Your task to perform on an android device: turn off picture-in-picture Image 0: 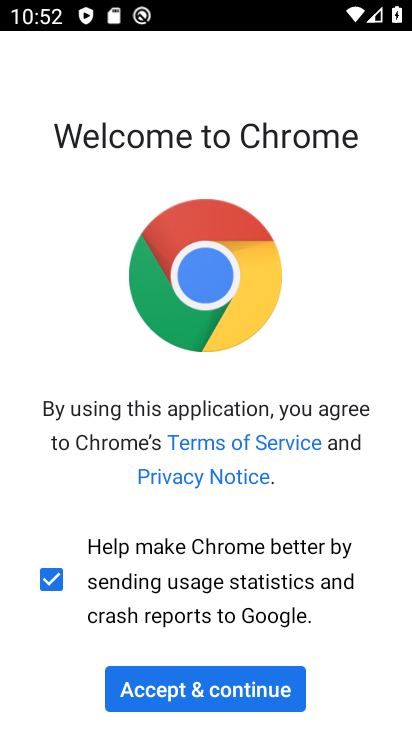
Step 0: press home button
Your task to perform on an android device: turn off picture-in-picture Image 1: 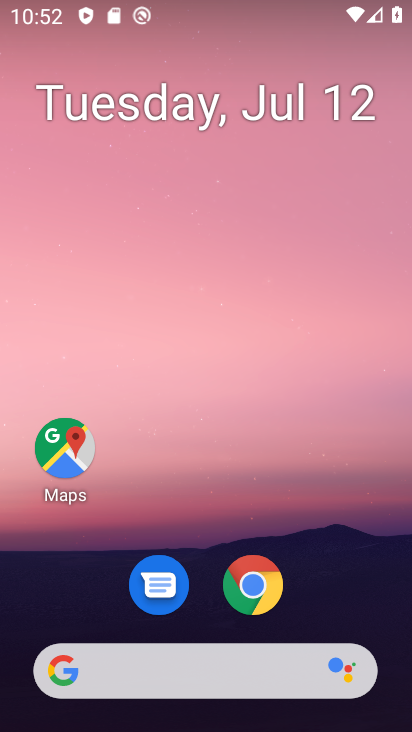
Step 1: click (268, 573)
Your task to perform on an android device: turn off picture-in-picture Image 2: 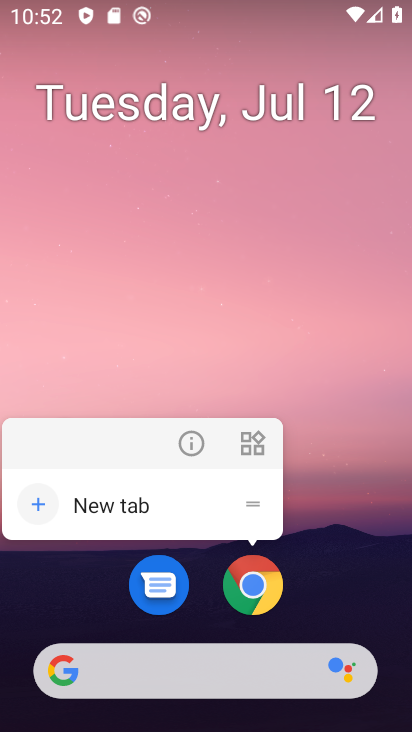
Step 2: click (189, 443)
Your task to perform on an android device: turn off picture-in-picture Image 3: 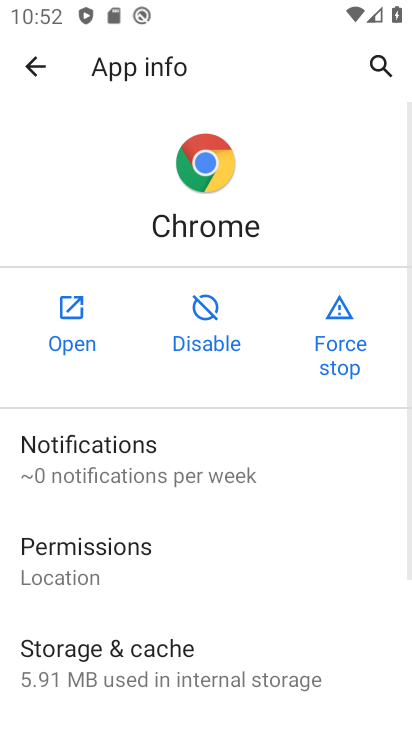
Step 3: drag from (218, 540) to (234, 141)
Your task to perform on an android device: turn off picture-in-picture Image 4: 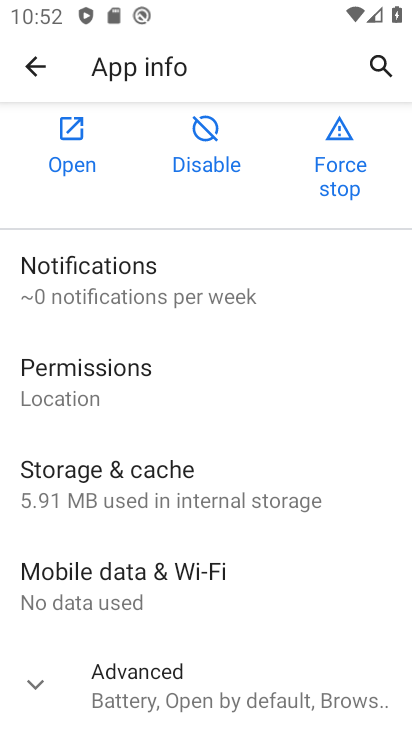
Step 4: click (38, 688)
Your task to perform on an android device: turn off picture-in-picture Image 5: 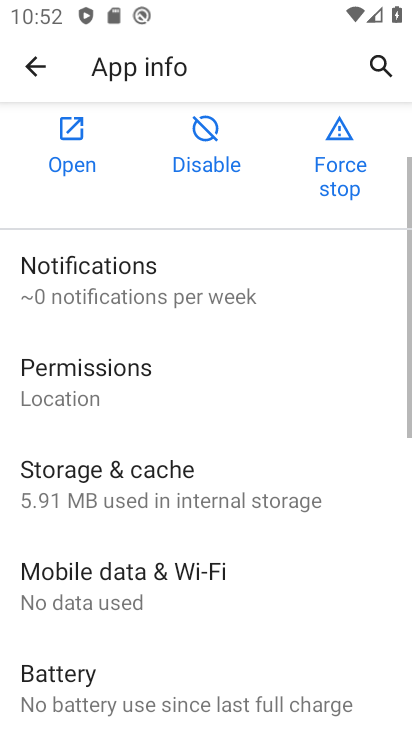
Step 5: drag from (242, 652) to (247, 226)
Your task to perform on an android device: turn off picture-in-picture Image 6: 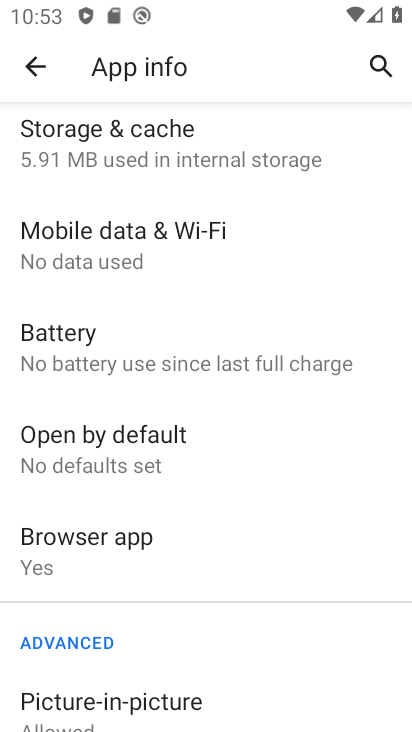
Step 6: drag from (240, 541) to (237, 254)
Your task to perform on an android device: turn off picture-in-picture Image 7: 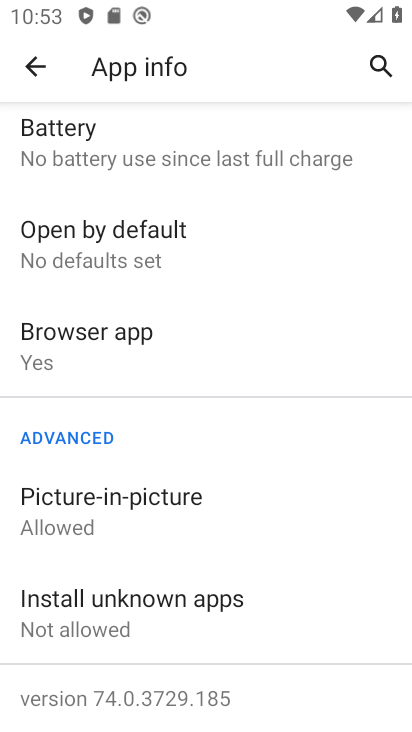
Step 7: click (70, 511)
Your task to perform on an android device: turn off picture-in-picture Image 8: 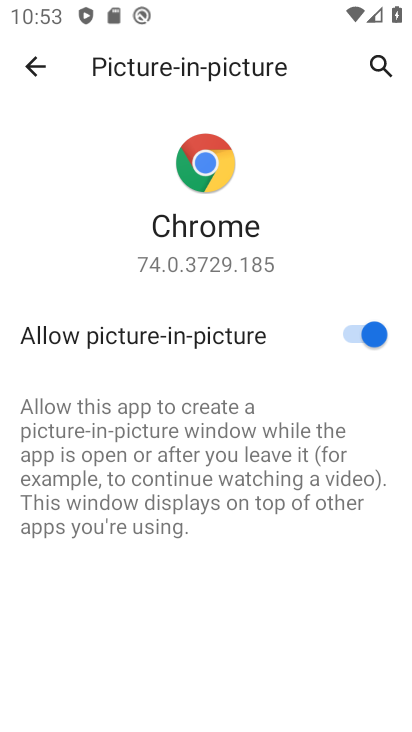
Step 8: click (349, 328)
Your task to perform on an android device: turn off picture-in-picture Image 9: 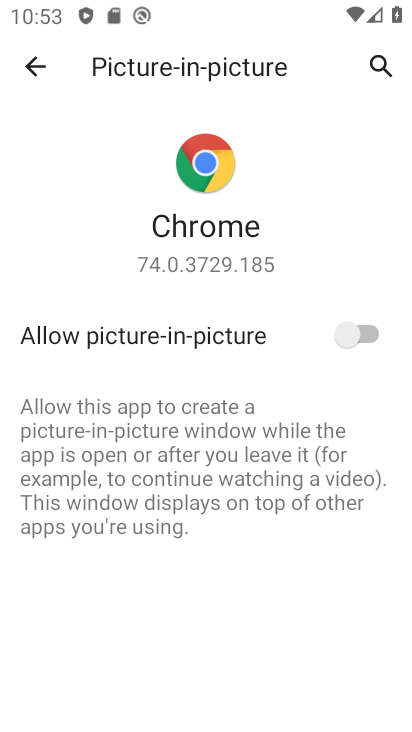
Step 9: task complete